Your task to perform on an android device: allow cookies in the chrome app Image 0: 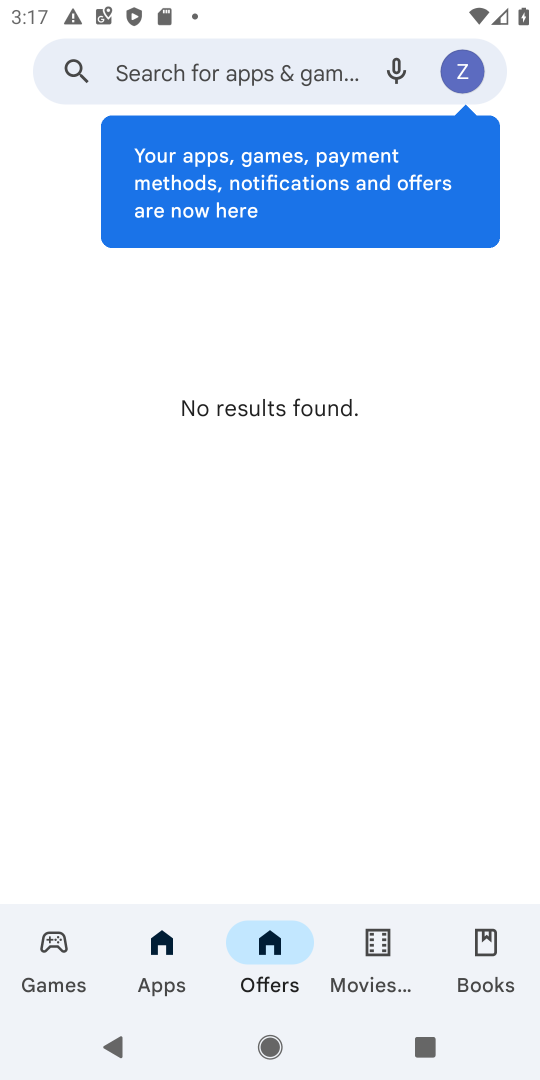
Step 0: press back button
Your task to perform on an android device: allow cookies in the chrome app Image 1: 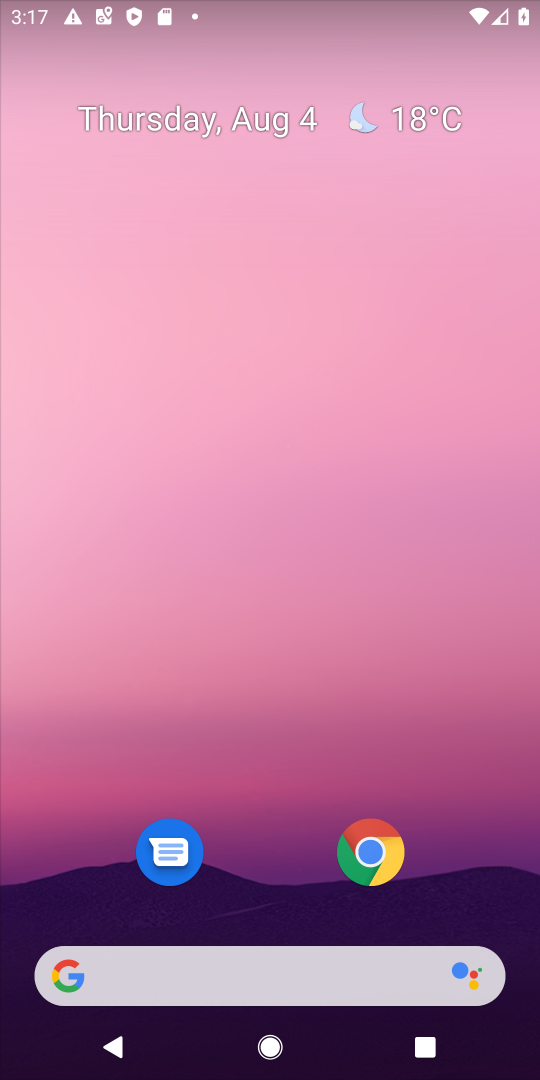
Step 1: click (354, 851)
Your task to perform on an android device: allow cookies in the chrome app Image 2: 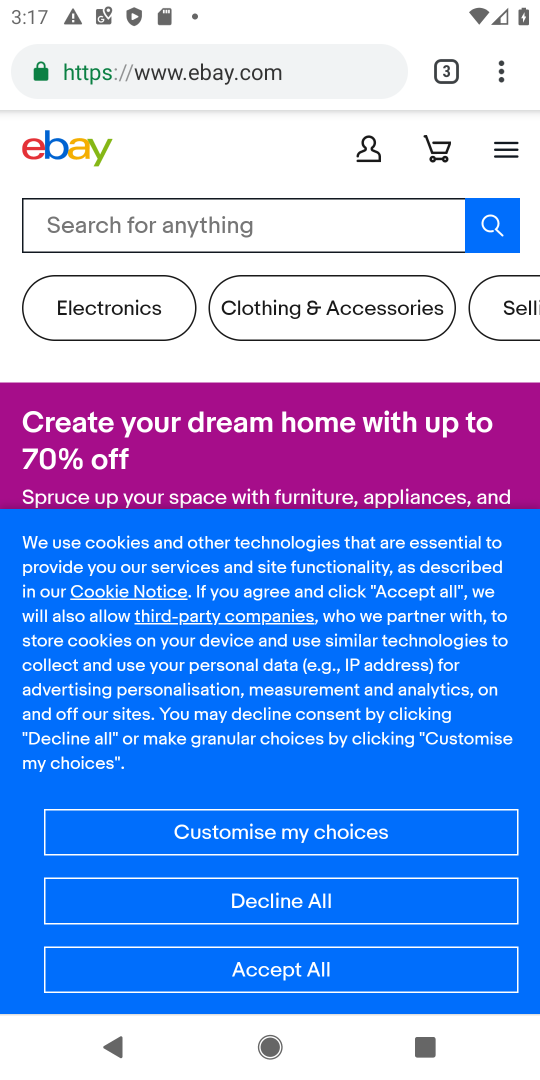
Step 2: drag from (495, 64) to (264, 887)
Your task to perform on an android device: allow cookies in the chrome app Image 3: 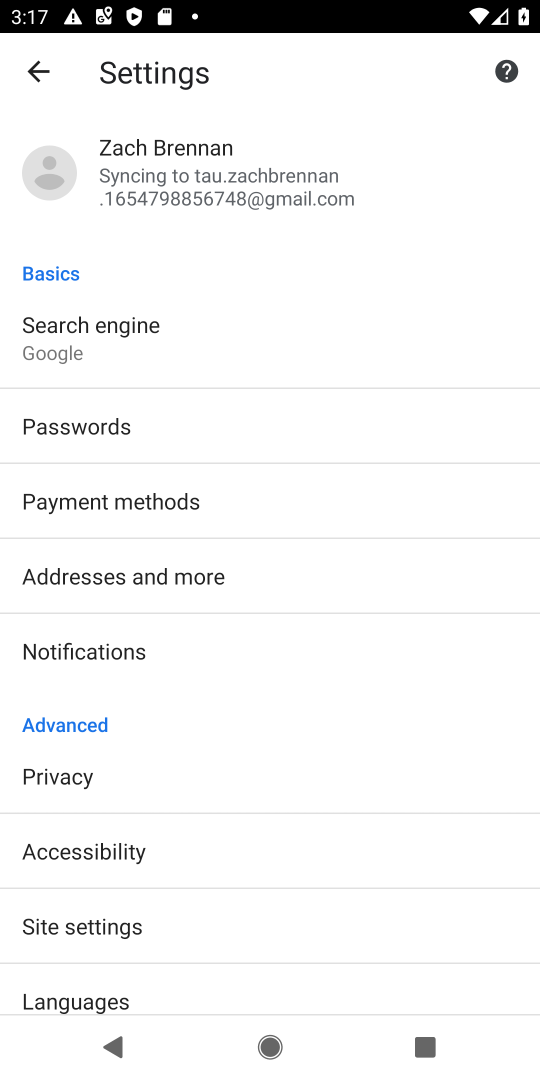
Step 3: click (78, 937)
Your task to perform on an android device: allow cookies in the chrome app Image 4: 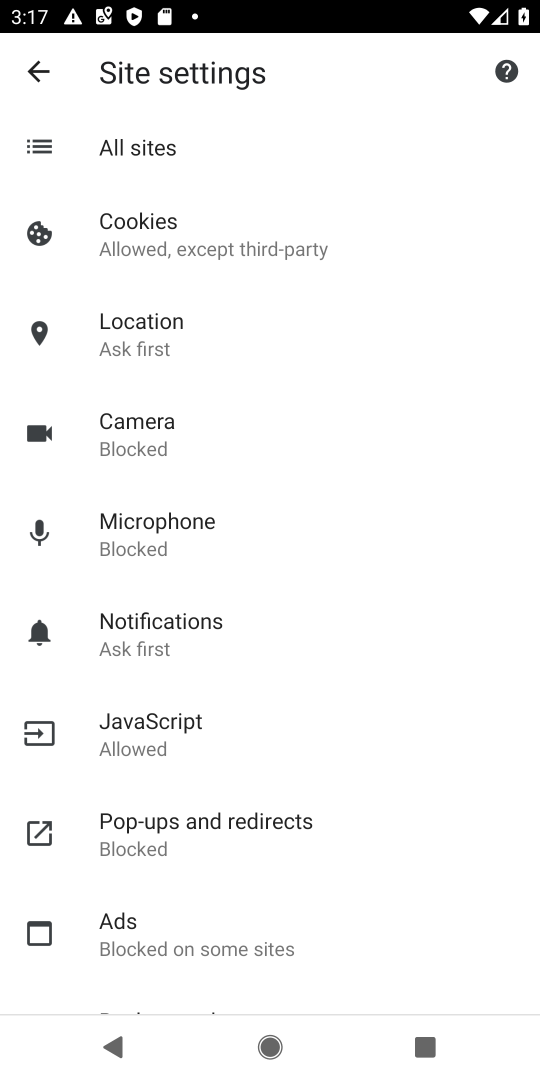
Step 4: click (156, 230)
Your task to perform on an android device: allow cookies in the chrome app Image 5: 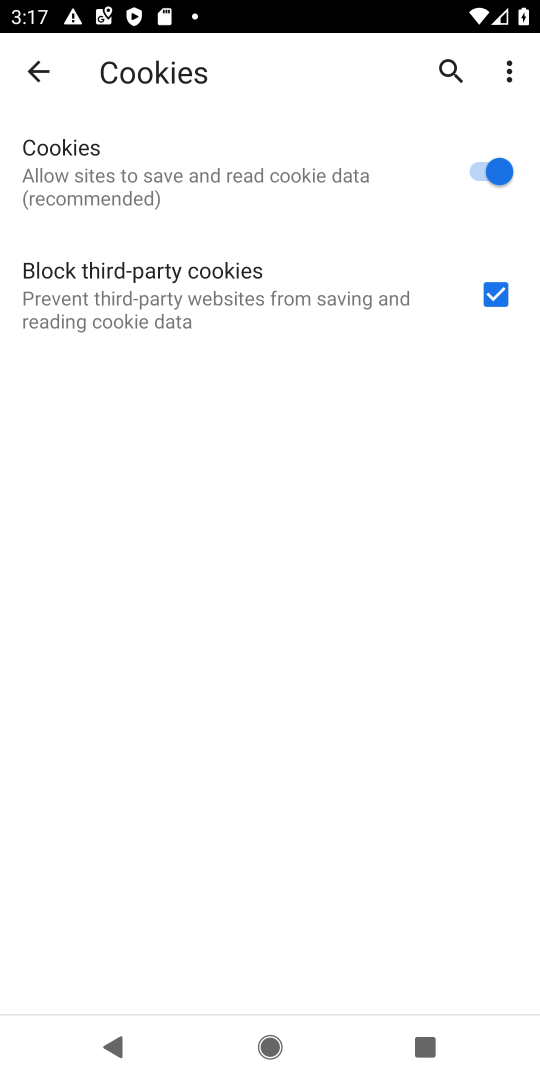
Step 5: task complete